Your task to perform on an android device: Go to calendar. Show me events next week Image 0: 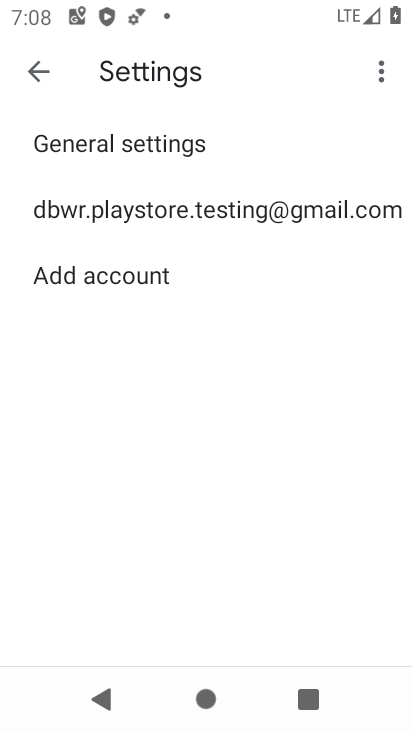
Step 0: press home button
Your task to perform on an android device: Go to calendar. Show me events next week Image 1: 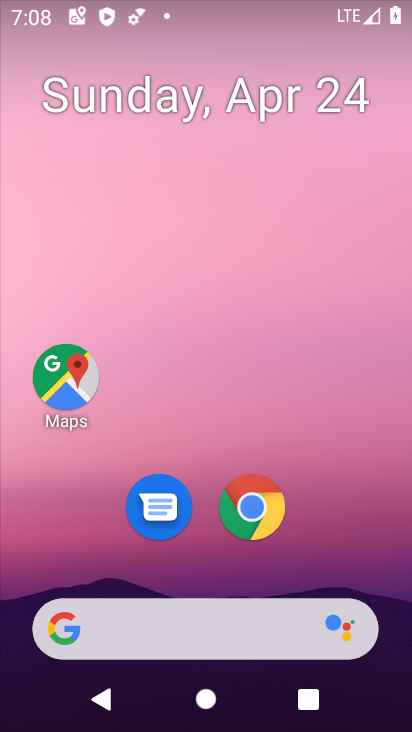
Step 1: drag from (354, 470) to (295, 0)
Your task to perform on an android device: Go to calendar. Show me events next week Image 2: 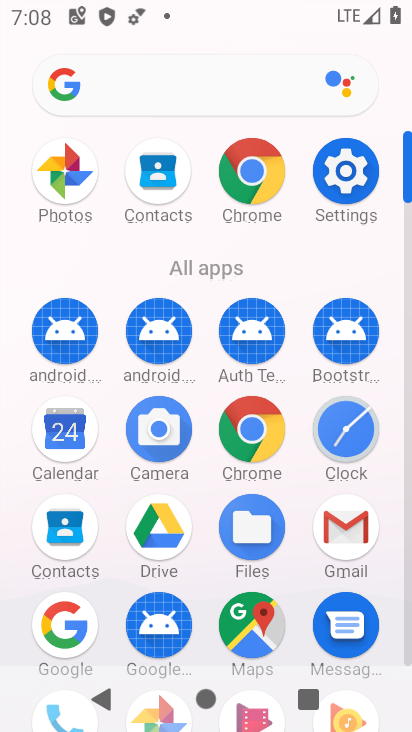
Step 2: click (51, 441)
Your task to perform on an android device: Go to calendar. Show me events next week Image 3: 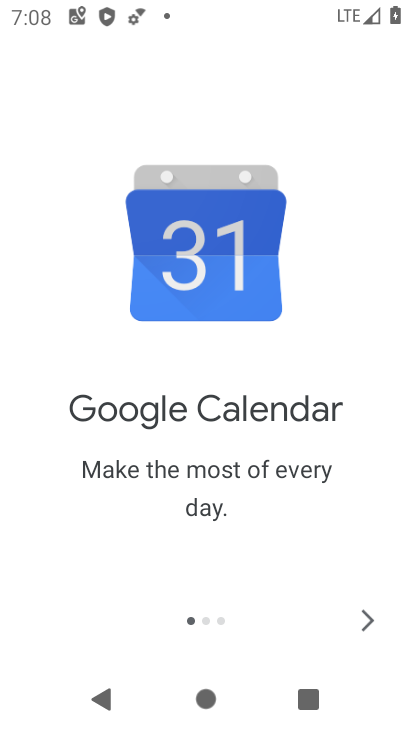
Step 3: click (362, 612)
Your task to perform on an android device: Go to calendar. Show me events next week Image 4: 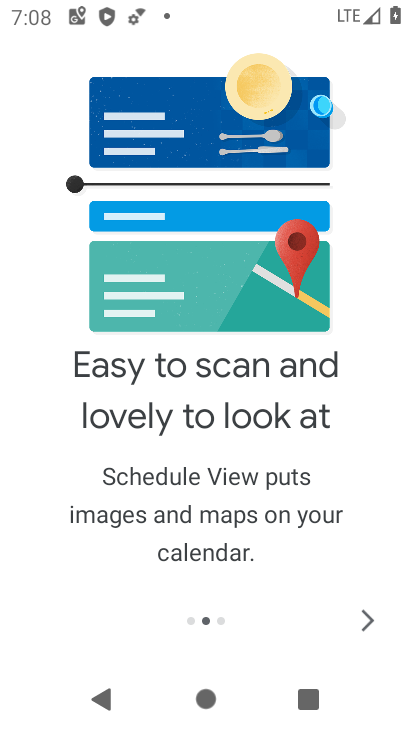
Step 4: click (370, 626)
Your task to perform on an android device: Go to calendar. Show me events next week Image 5: 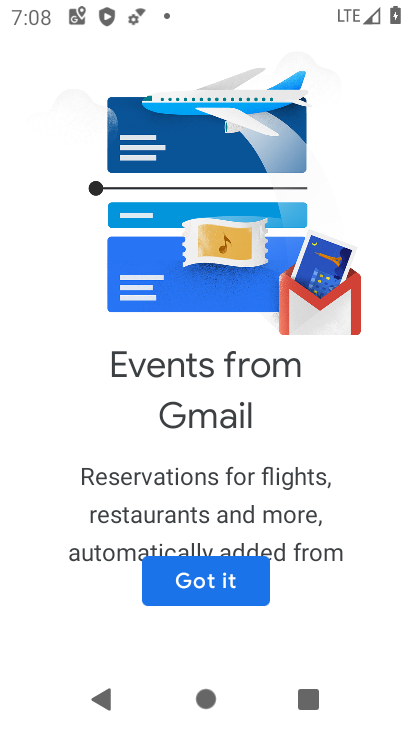
Step 5: click (206, 582)
Your task to perform on an android device: Go to calendar. Show me events next week Image 6: 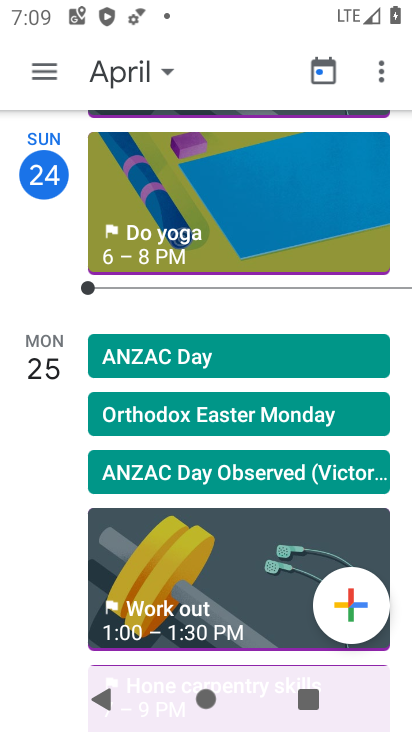
Step 6: click (125, 67)
Your task to perform on an android device: Go to calendar. Show me events next week Image 7: 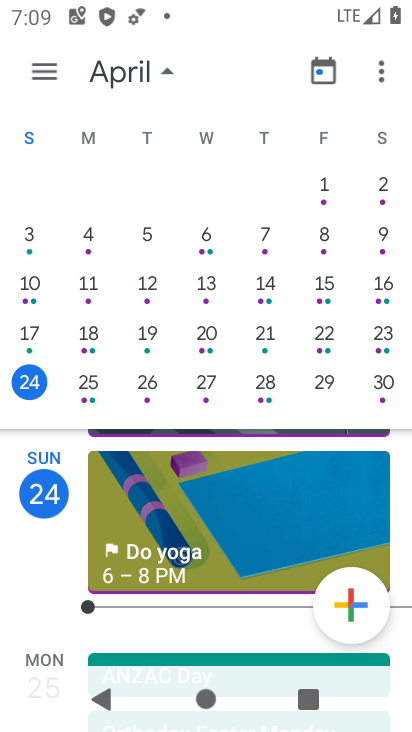
Step 7: drag from (362, 355) to (5, 364)
Your task to perform on an android device: Go to calendar. Show me events next week Image 8: 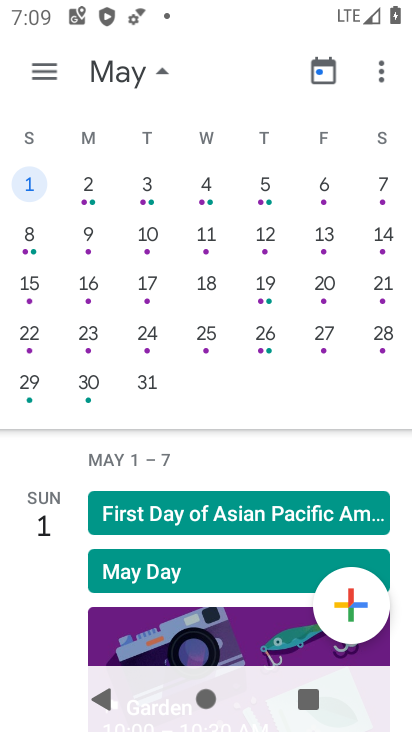
Step 8: click (271, 193)
Your task to perform on an android device: Go to calendar. Show me events next week Image 9: 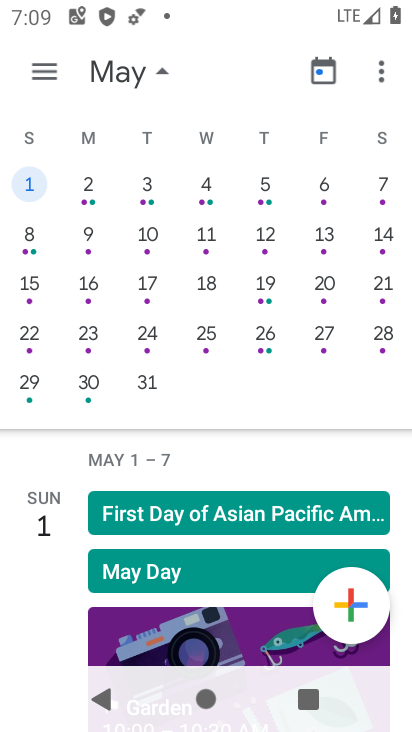
Step 9: click (260, 189)
Your task to perform on an android device: Go to calendar. Show me events next week Image 10: 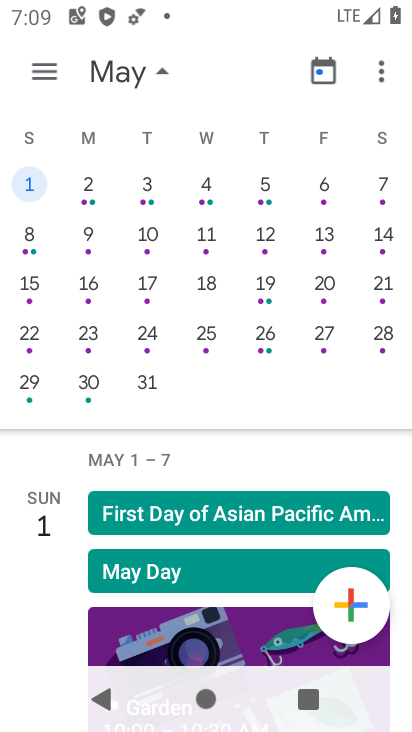
Step 10: click (266, 194)
Your task to perform on an android device: Go to calendar. Show me events next week Image 11: 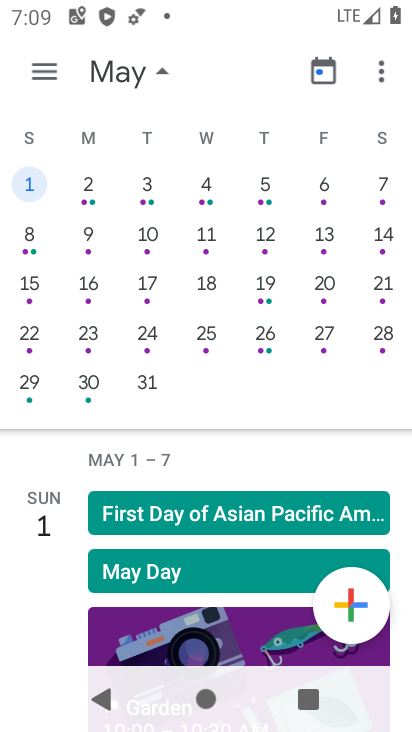
Step 11: click (266, 194)
Your task to perform on an android device: Go to calendar. Show me events next week Image 12: 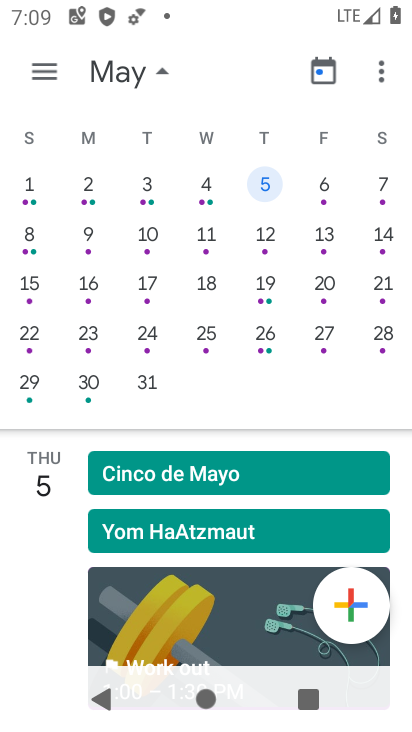
Step 12: task complete